Your task to perform on an android device: Open Reddit.com Image 0: 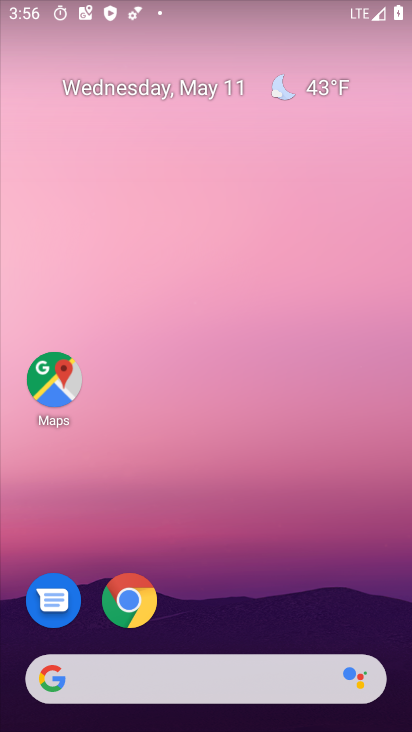
Step 0: click (145, 609)
Your task to perform on an android device: Open Reddit.com Image 1: 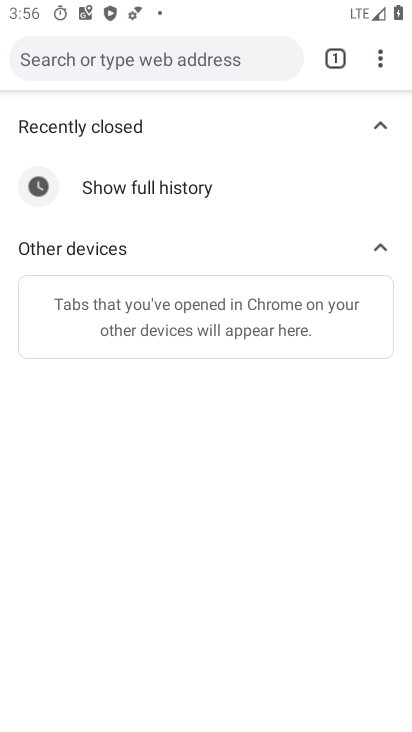
Step 1: click (110, 66)
Your task to perform on an android device: Open Reddit.com Image 2: 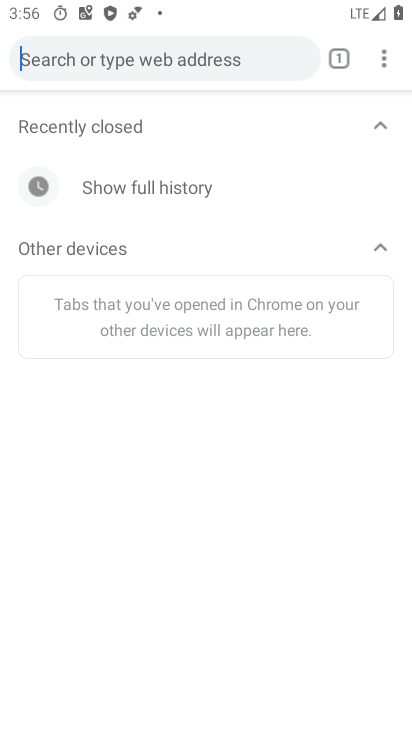
Step 2: click (69, 54)
Your task to perform on an android device: Open Reddit.com Image 3: 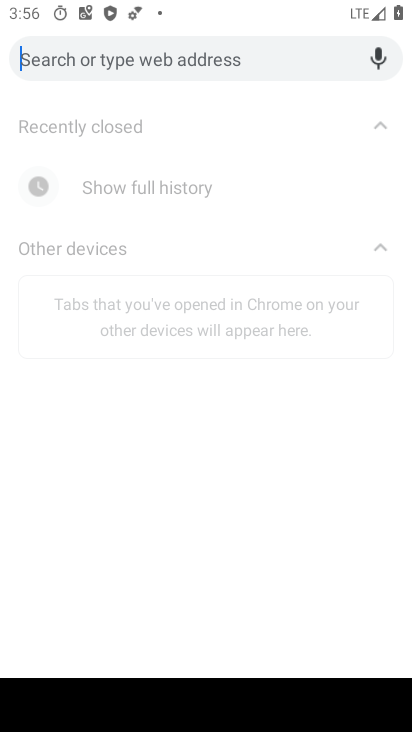
Step 3: type "reddit.com"
Your task to perform on an android device: Open Reddit.com Image 4: 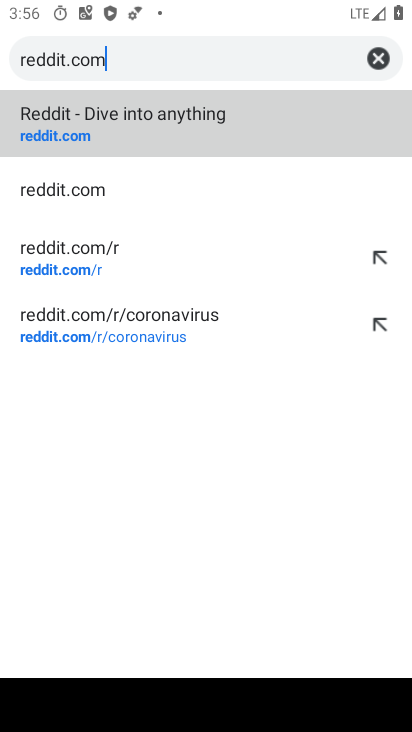
Step 4: click (75, 193)
Your task to perform on an android device: Open Reddit.com Image 5: 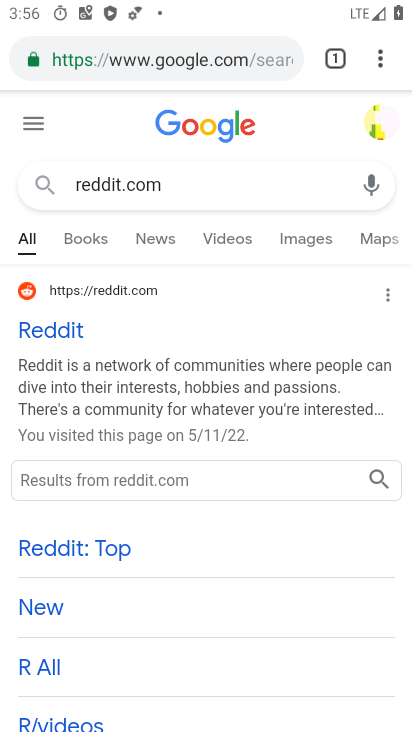
Step 5: click (69, 330)
Your task to perform on an android device: Open Reddit.com Image 6: 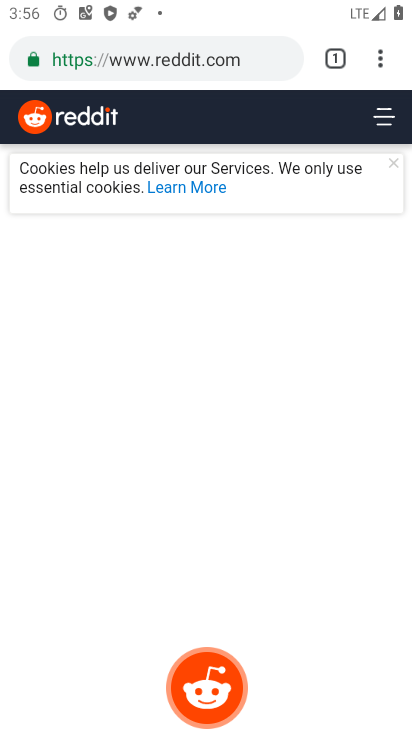
Step 6: task complete